Your task to perform on an android device: delete a single message in the gmail app Image 0: 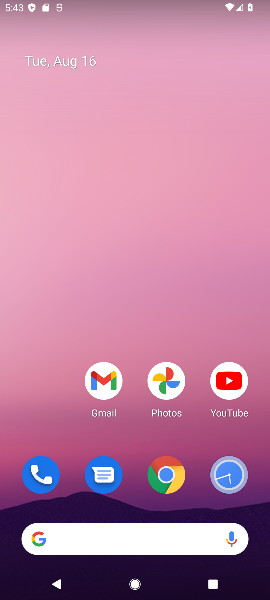
Step 0: drag from (197, 201) to (155, 8)
Your task to perform on an android device: delete a single message in the gmail app Image 1: 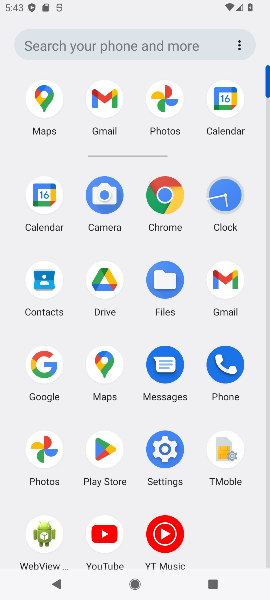
Step 1: click (223, 287)
Your task to perform on an android device: delete a single message in the gmail app Image 2: 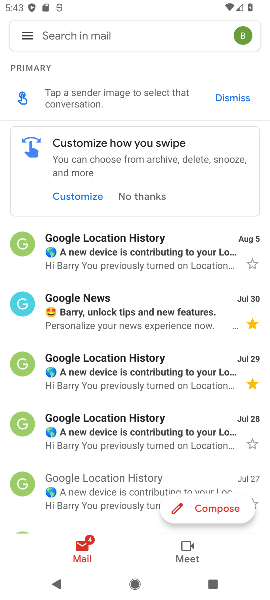
Step 2: click (110, 260)
Your task to perform on an android device: delete a single message in the gmail app Image 3: 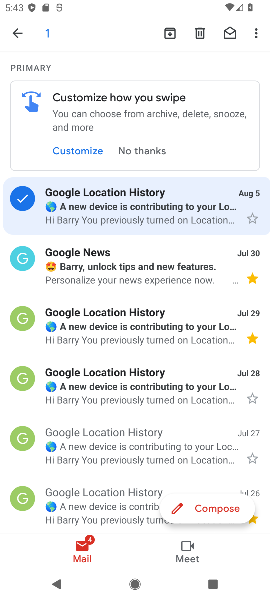
Step 3: click (201, 29)
Your task to perform on an android device: delete a single message in the gmail app Image 4: 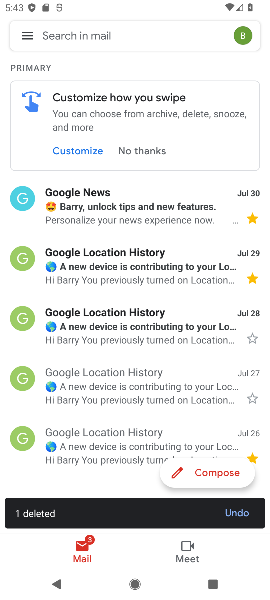
Step 4: task complete